Your task to perform on an android device: Open wifi settings Image 0: 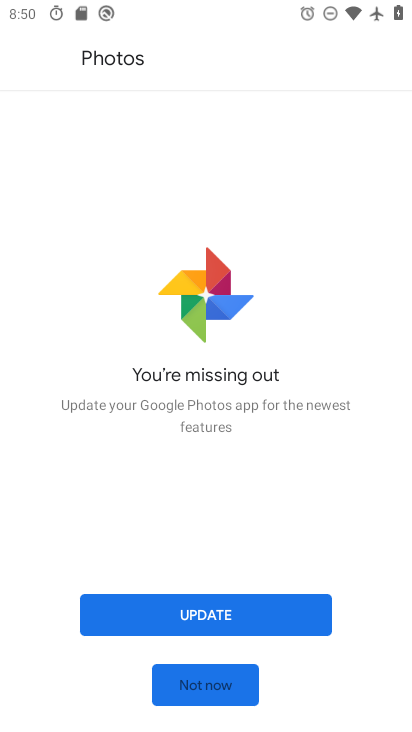
Step 0: press home button
Your task to perform on an android device: Open wifi settings Image 1: 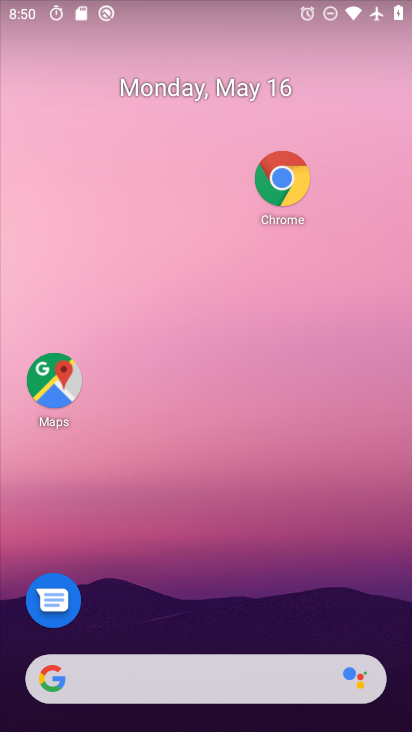
Step 1: drag from (204, 664) to (298, 167)
Your task to perform on an android device: Open wifi settings Image 2: 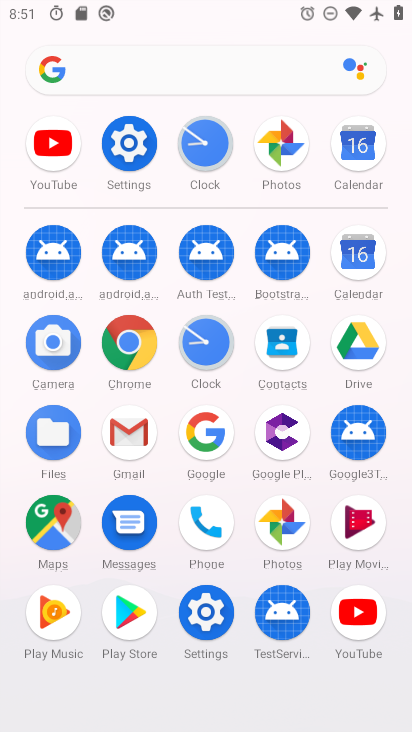
Step 2: click (138, 147)
Your task to perform on an android device: Open wifi settings Image 3: 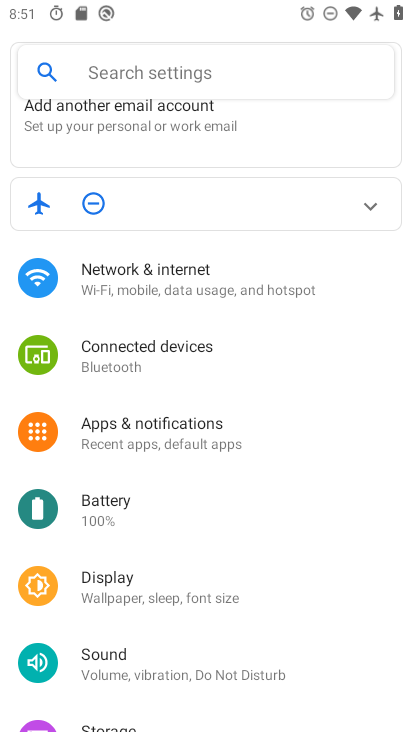
Step 3: click (201, 272)
Your task to perform on an android device: Open wifi settings Image 4: 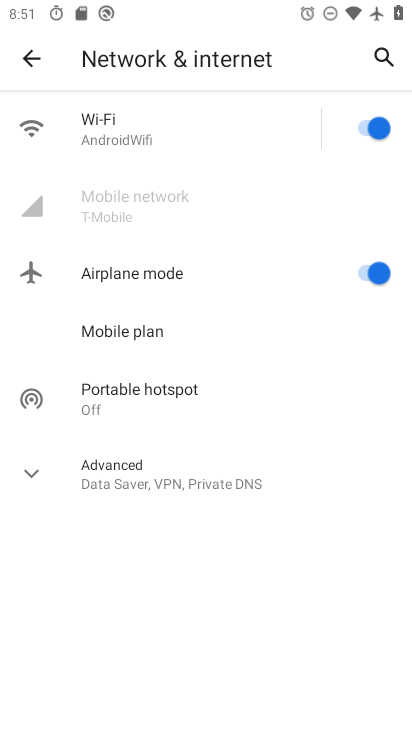
Step 4: click (121, 137)
Your task to perform on an android device: Open wifi settings Image 5: 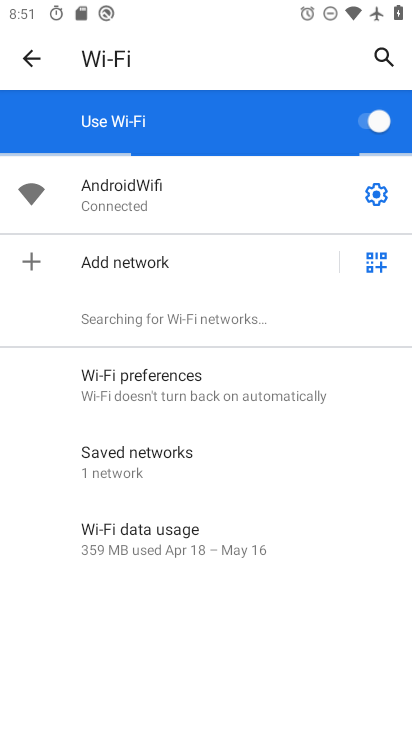
Step 5: task complete